Your task to perform on an android device: open a bookmark in the chrome app Image 0: 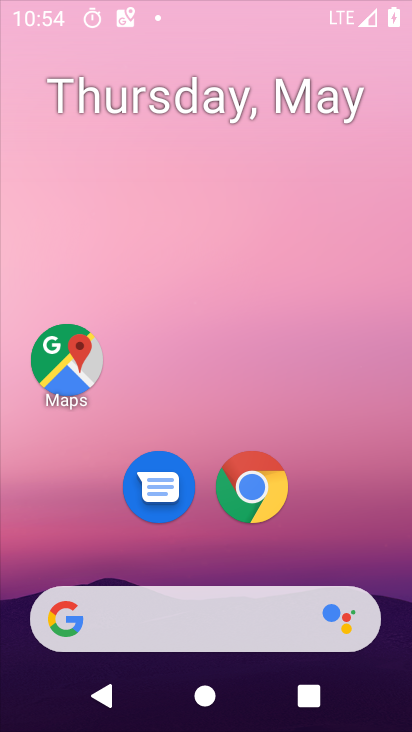
Step 0: drag from (238, 419) to (259, 19)
Your task to perform on an android device: open a bookmark in the chrome app Image 1: 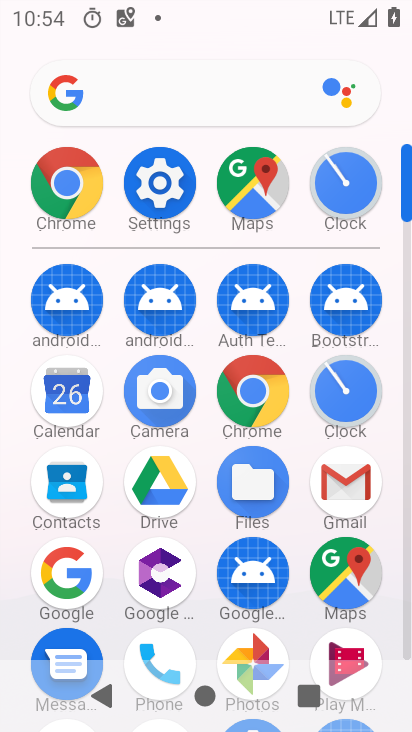
Step 1: click (264, 410)
Your task to perform on an android device: open a bookmark in the chrome app Image 2: 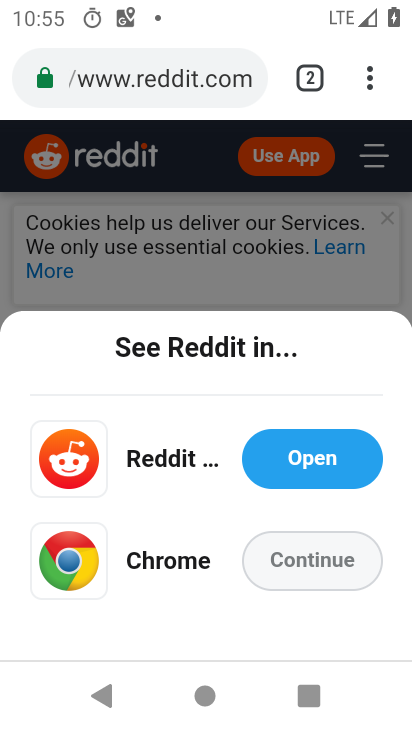
Step 2: click (365, 83)
Your task to perform on an android device: open a bookmark in the chrome app Image 3: 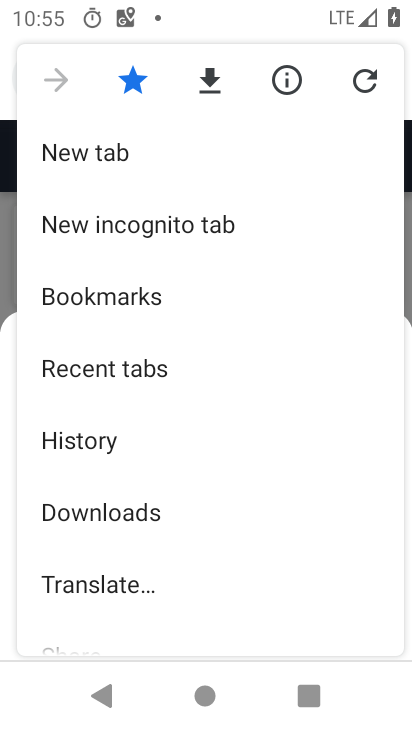
Step 3: click (158, 315)
Your task to perform on an android device: open a bookmark in the chrome app Image 4: 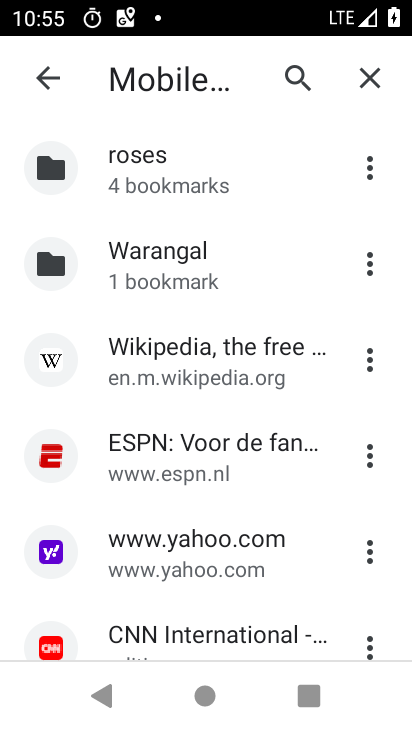
Step 4: click (187, 448)
Your task to perform on an android device: open a bookmark in the chrome app Image 5: 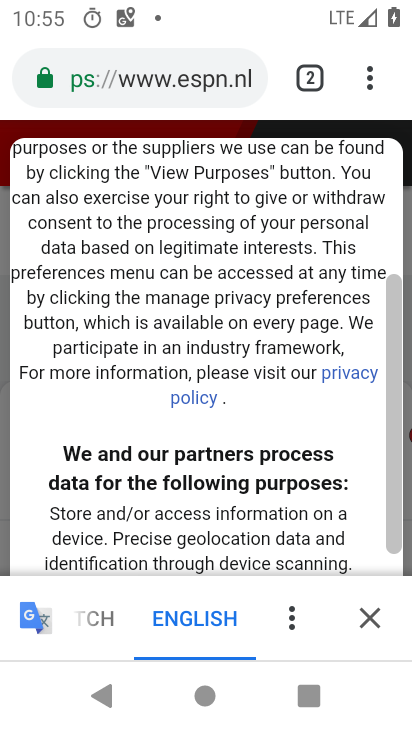
Step 5: task complete